Your task to perform on an android device: Toggle the flashlight Image 0: 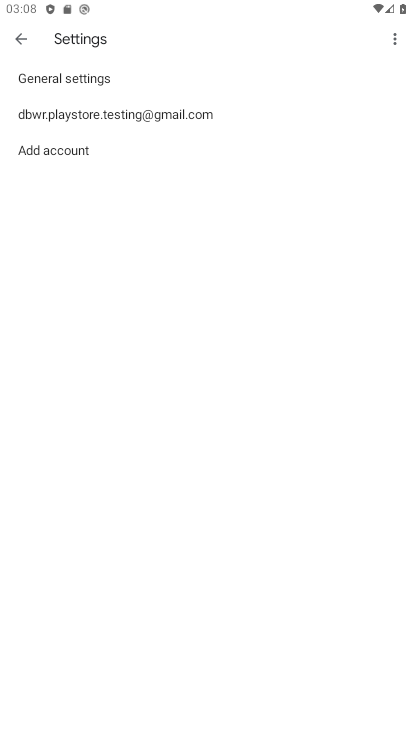
Step 0: press home button
Your task to perform on an android device: Toggle the flashlight Image 1: 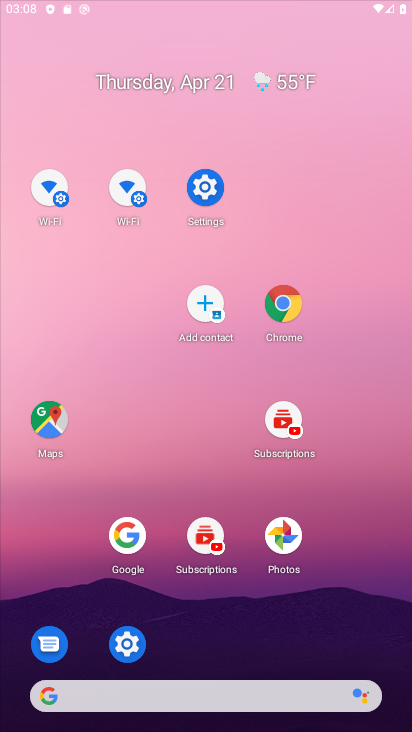
Step 1: task complete